Your task to perform on an android device: open app "HBO Max: Stream TV & Movies" Image 0: 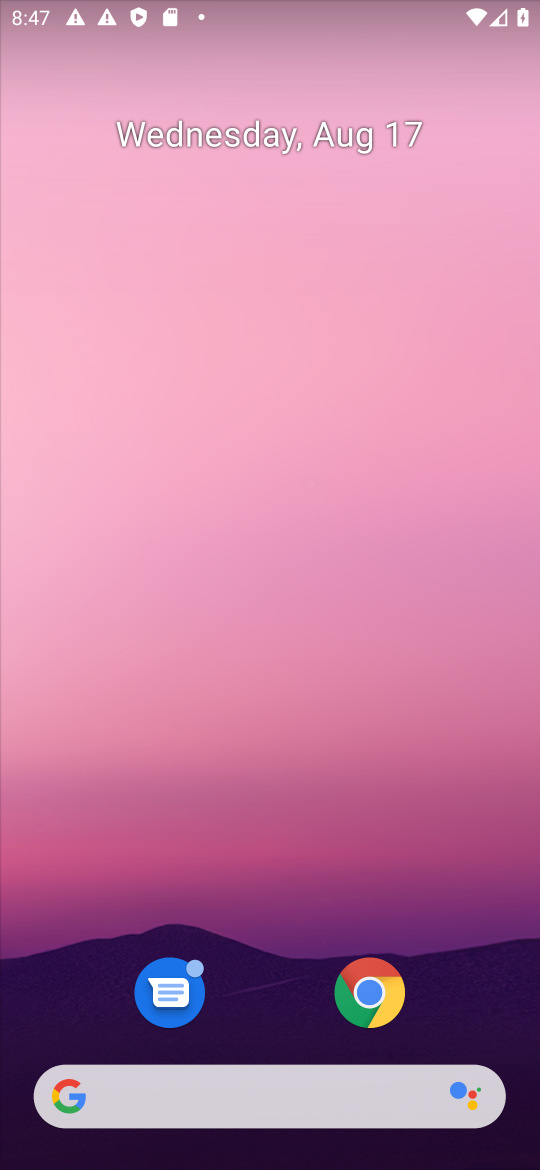
Step 0: drag from (229, 1094) to (276, 86)
Your task to perform on an android device: open app "HBO Max: Stream TV & Movies" Image 1: 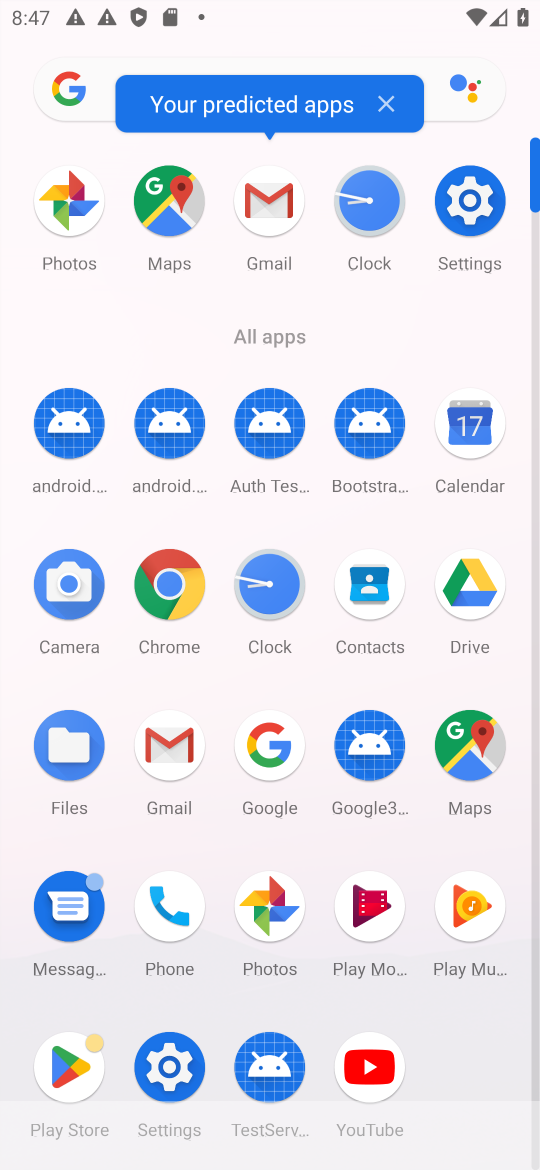
Step 1: click (72, 1064)
Your task to perform on an android device: open app "HBO Max: Stream TV & Movies" Image 2: 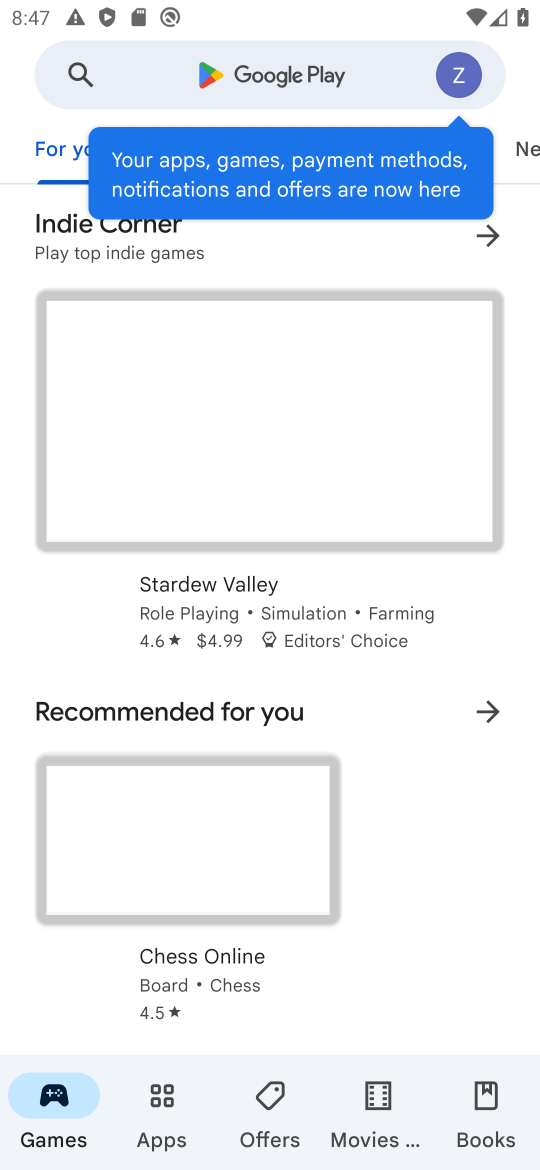
Step 2: click (263, 74)
Your task to perform on an android device: open app "HBO Max: Stream TV & Movies" Image 3: 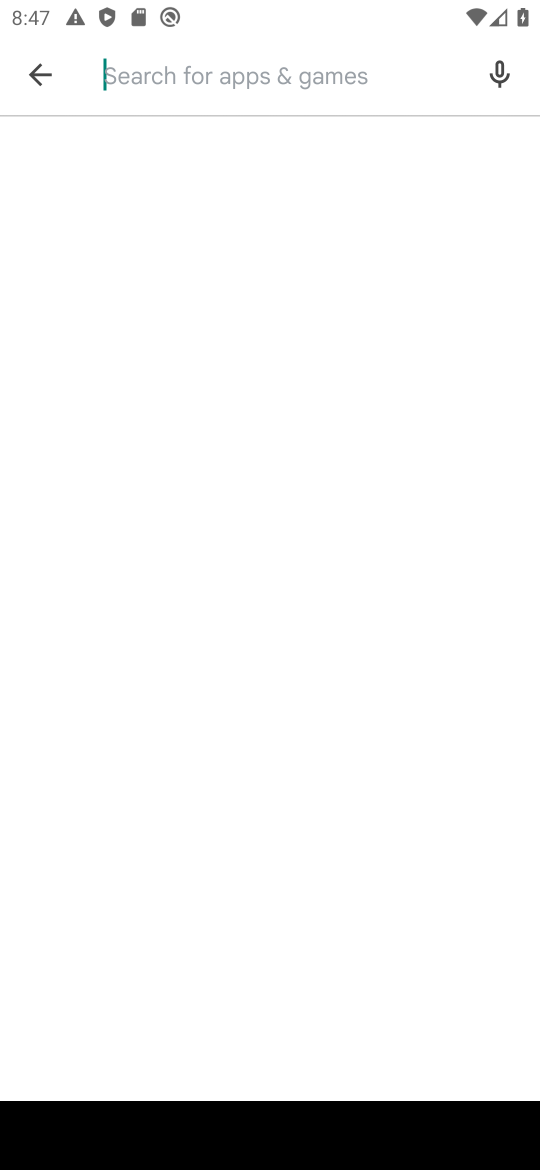
Step 3: type "HBO Max: Stream TV & Movies"
Your task to perform on an android device: open app "HBO Max: Stream TV & Movies" Image 4: 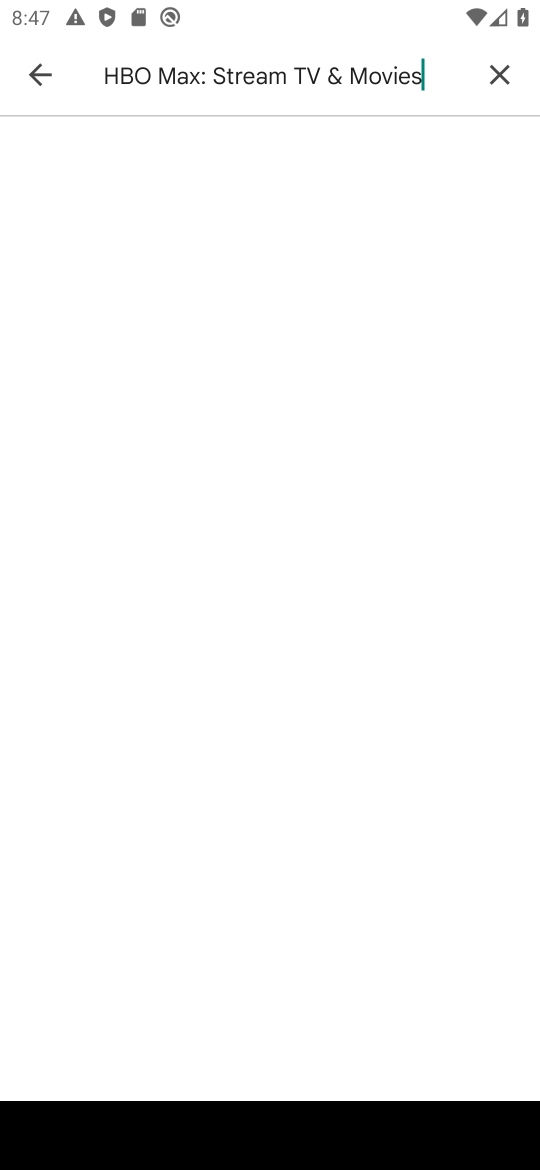
Step 4: type ""
Your task to perform on an android device: open app "HBO Max: Stream TV & Movies" Image 5: 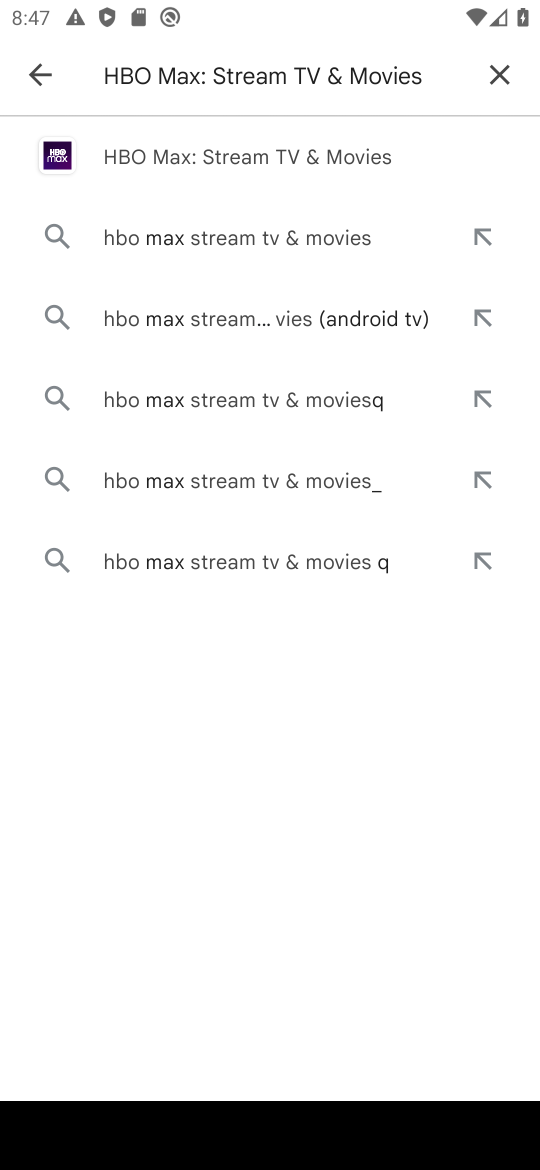
Step 5: click (275, 149)
Your task to perform on an android device: open app "HBO Max: Stream TV & Movies" Image 6: 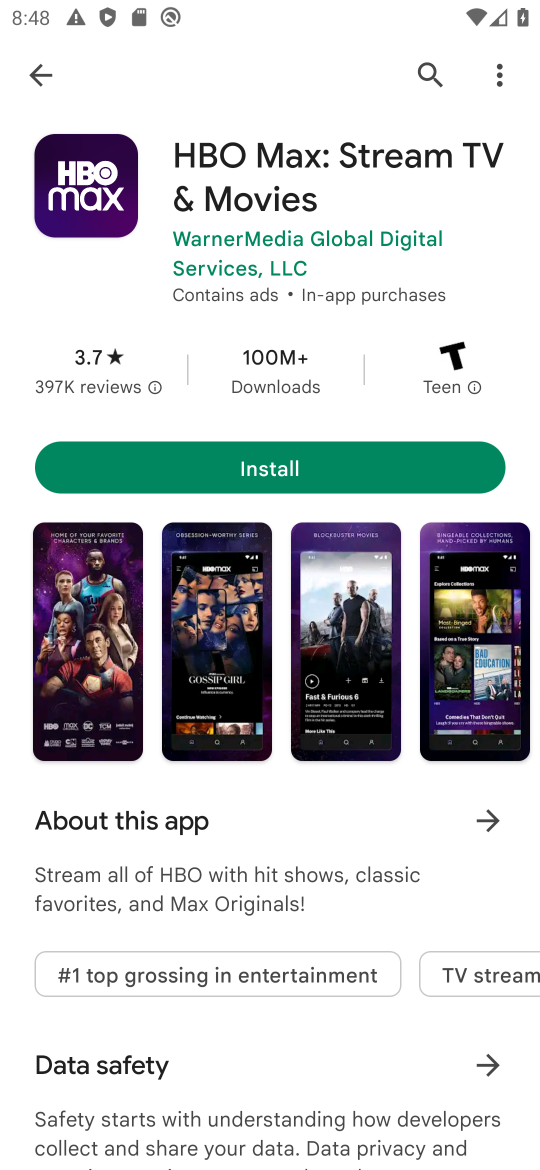
Step 6: task complete